Your task to perform on an android device: toggle show notifications on the lock screen Image 0: 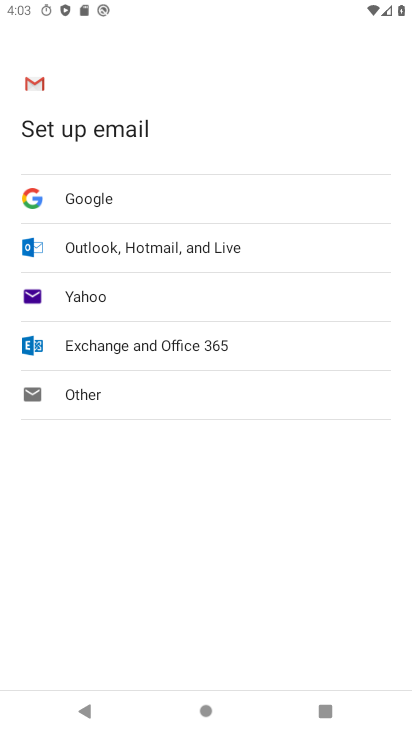
Step 0: drag from (262, 13) to (98, 578)
Your task to perform on an android device: toggle show notifications on the lock screen Image 1: 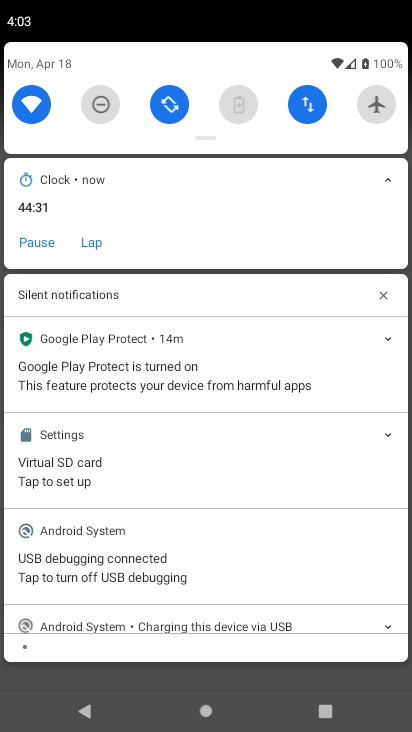
Step 1: drag from (150, 63) to (176, 586)
Your task to perform on an android device: toggle show notifications on the lock screen Image 2: 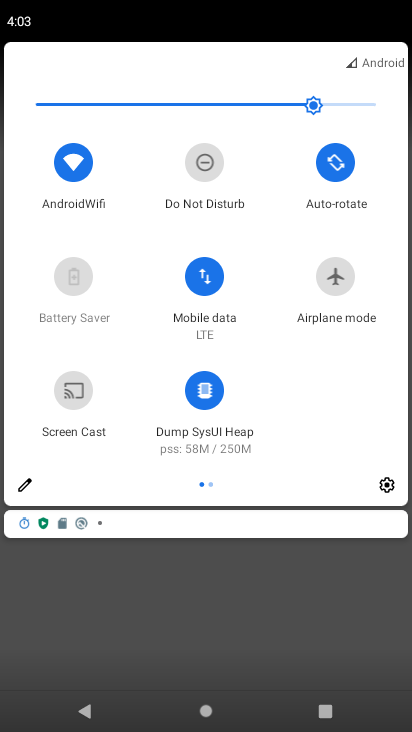
Step 2: click (388, 490)
Your task to perform on an android device: toggle show notifications on the lock screen Image 3: 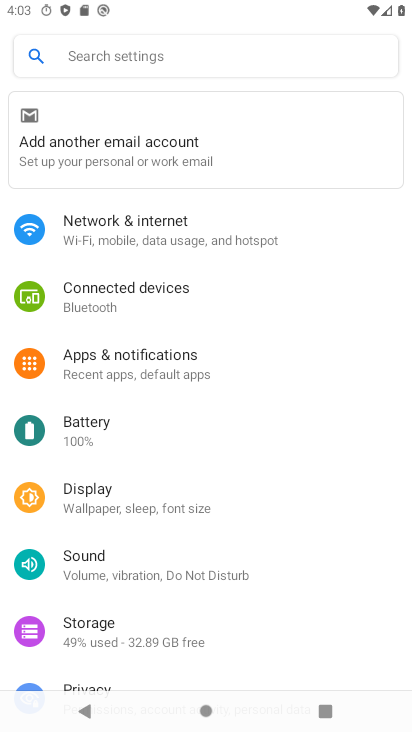
Step 3: click (180, 375)
Your task to perform on an android device: toggle show notifications on the lock screen Image 4: 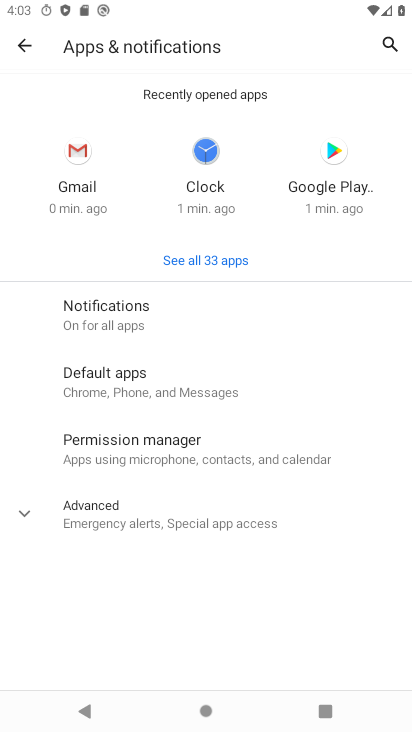
Step 4: click (178, 325)
Your task to perform on an android device: toggle show notifications on the lock screen Image 5: 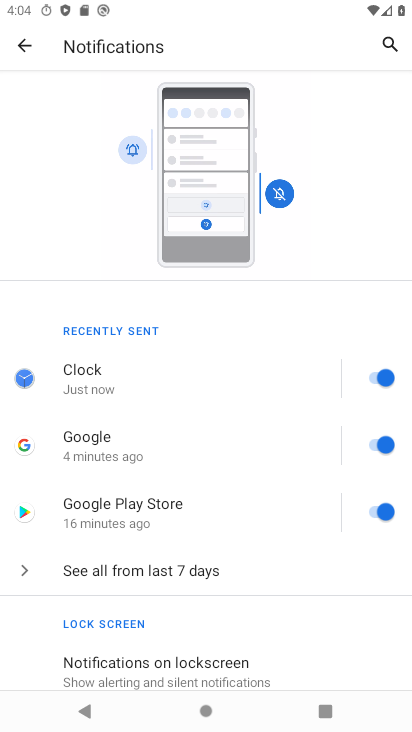
Step 5: drag from (190, 642) to (257, 202)
Your task to perform on an android device: toggle show notifications on the lock screen Image 6: 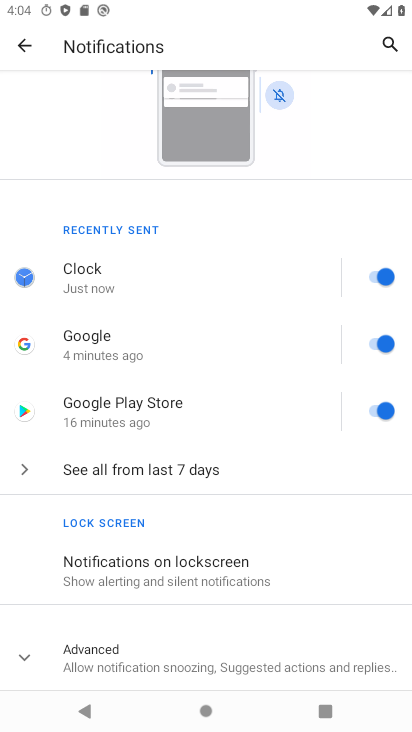
Step 6: click (147, 582)
Your task to perform on an android device: toggle show notifications on the lock screen Image 7: 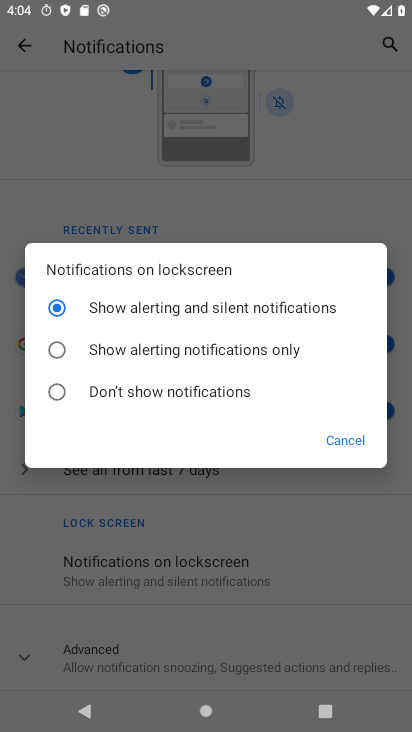
Step 7: click (115, 355)
Your task to perform on an android device: toggle show notifications on the lock screen Image 8: 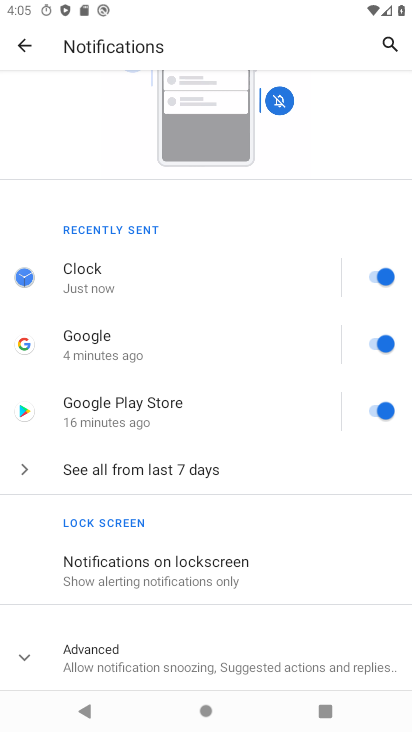
Step 8: click (204, 600)
Your task to perform on an android device: toggle show notifications on the lock screen Image 9: 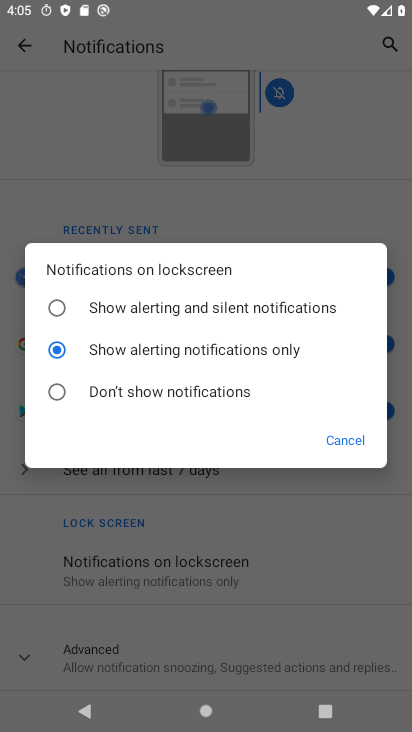
Step 9: task complete